Your task to perform on an android device: toggle pop-ups in chrome Image 0: 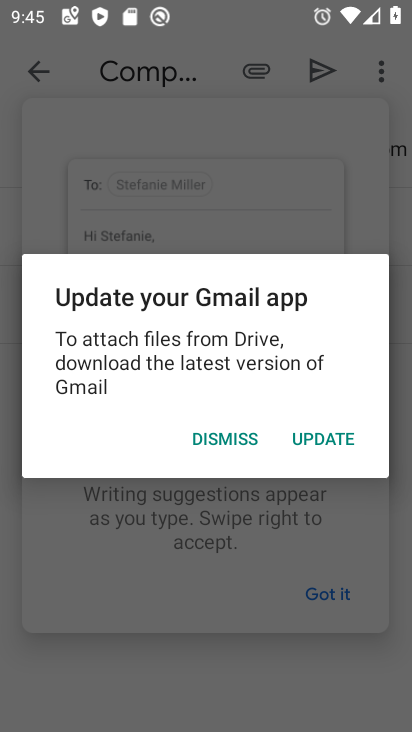
Step 0: press home button
Your task to perform on an android device: toggle pop-ups in chrome Image 1: 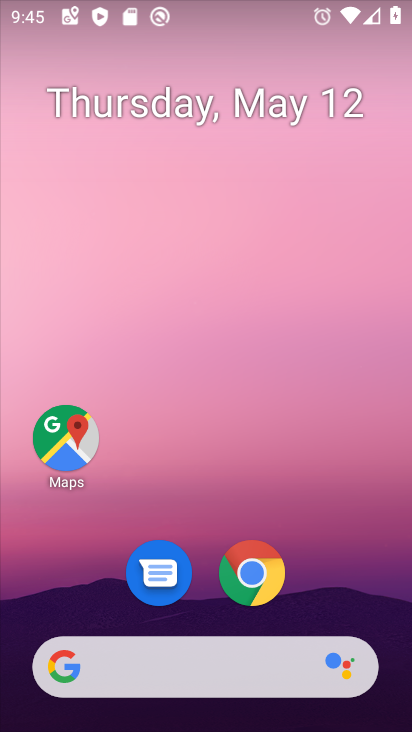
Step 1: drag from (330, 572) to (222, 171)
Your task to perform on an android device: toggle pop-ups in chrome Image 2: 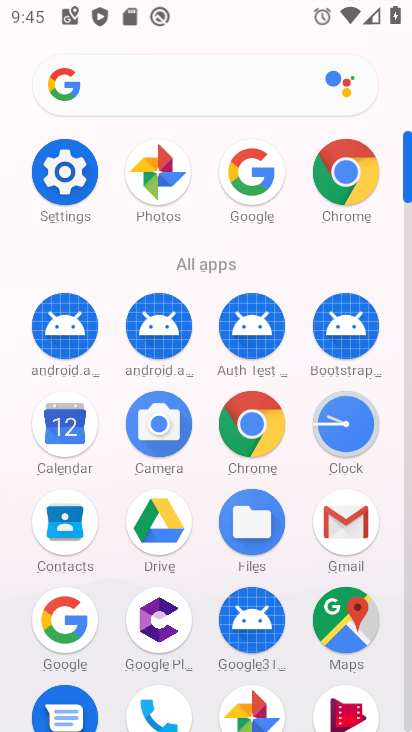
Step 2: click (341, 176)
Your task to perform on an android device: toggle pop-ups in chrome Image 3: 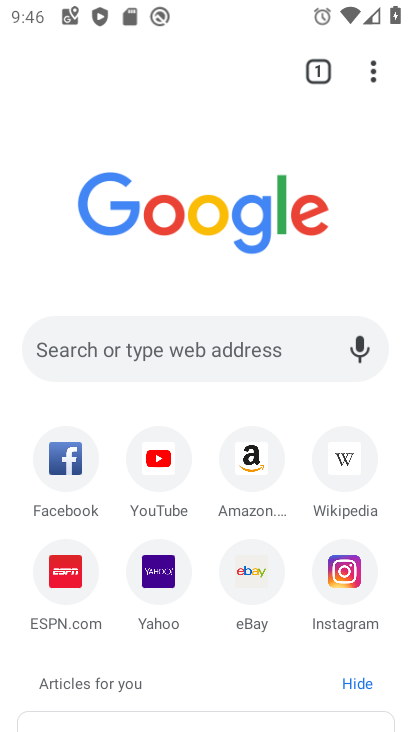
Step 3: click (373, 73)
Your task to perform on an android device: toggle pop-ups in chrome Image 4: 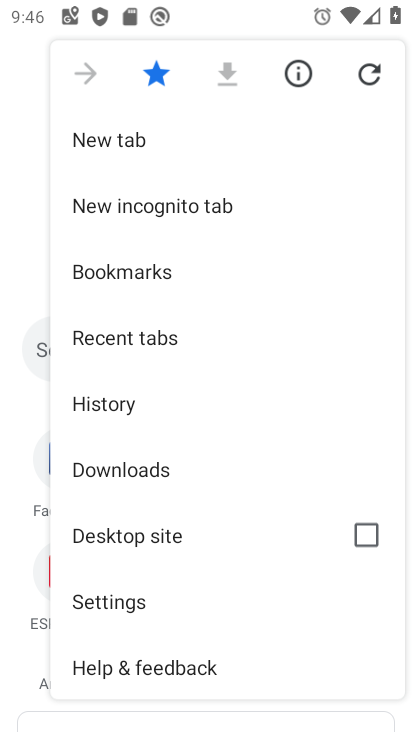
Step 4: click (132, 607)
Your task to perform on an android device: toggle pop-ups in chrome Image 5: 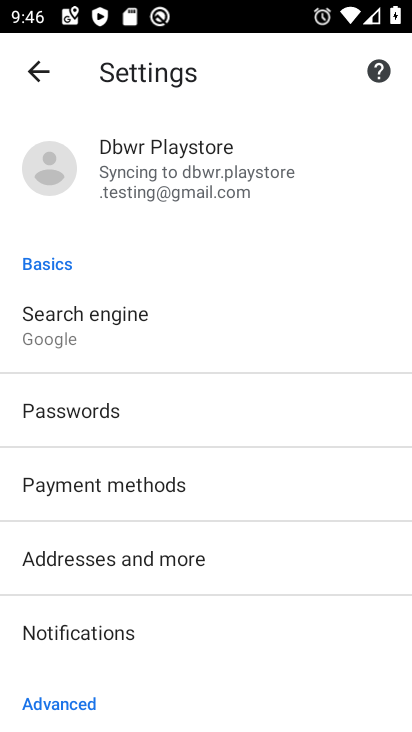
Step 5: drag from (128, 644) to (217, 501)
Your task to perform on an android device: toggle pop-ups in chrome Image 6: 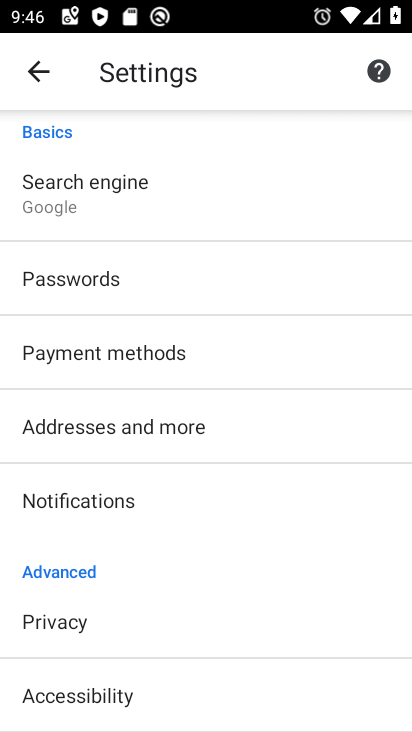
Step 6: drag from (147, 637) to (171, 539)
Your task to perform on an android device: toggle pop-ups in chrome Image 7: 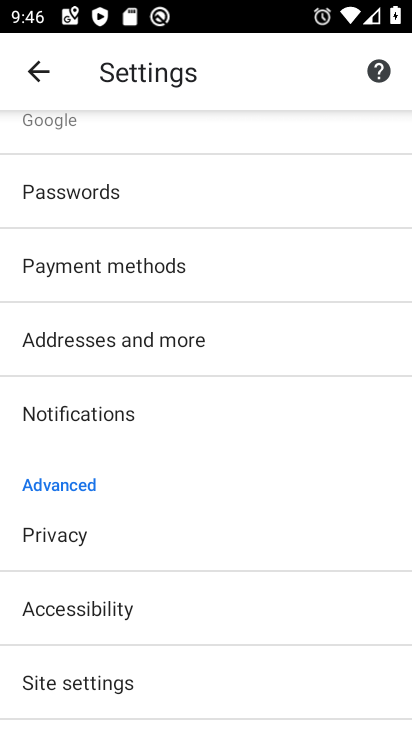
Step 7: drag from (171, 617) to (210, 515)
Your task to perform on an android device: toggle pop-ups in chrome Image 8: 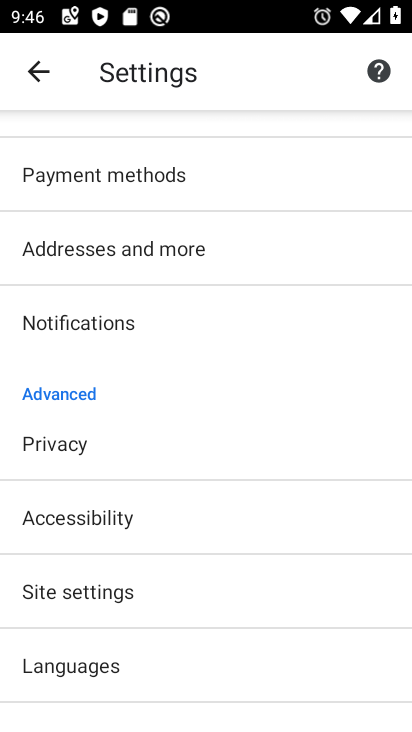
Step 8: click (125, 589)
Your task to perform on an android device: toggle pop-ups in chrome Image 9: 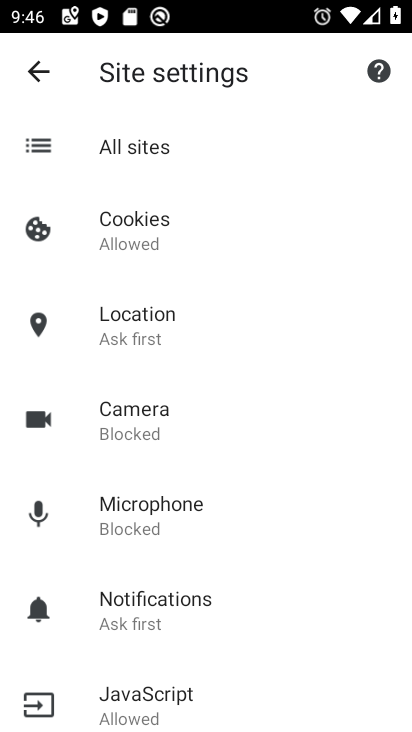
Step 9: drag from (216, 636) to (249, 527)
Your task to perform on an android device: toggle pop-ups in chrome Image 10: 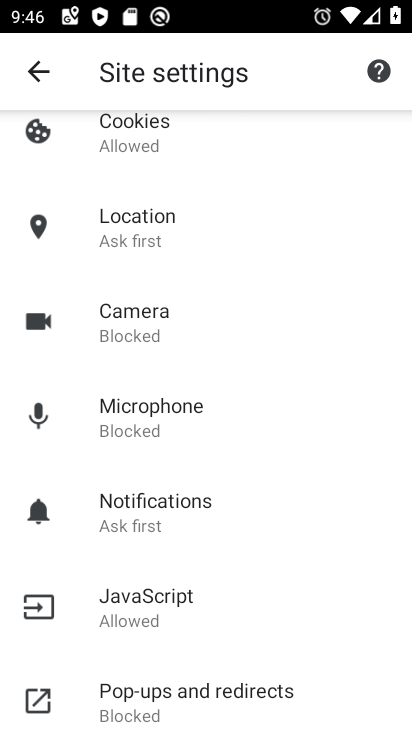
Step 10: drag from (199, 626) to (281, 506)
Your task to perform on an android device: toggle pop-ups in chrome Image 11: 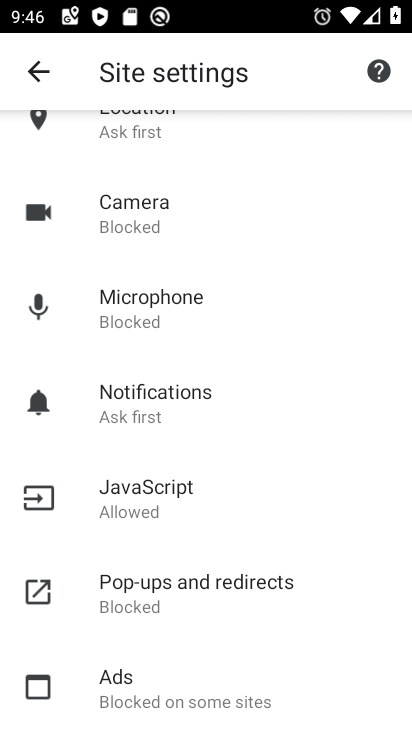
Step 11: click (207, 577)
Your task to perform on an android device: toggle pop-ups in chrome Image 12: 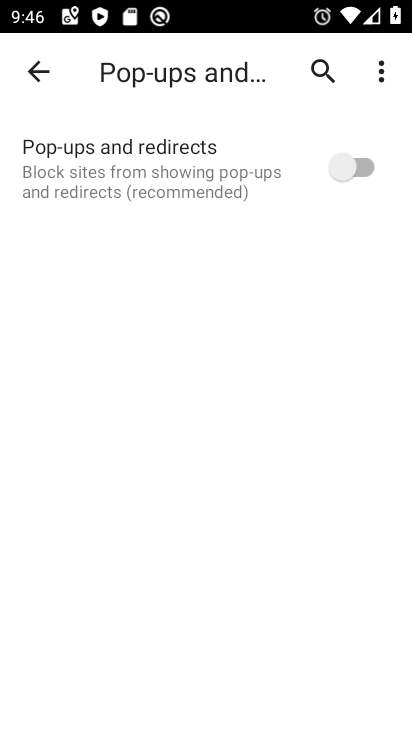
Step 12: click (342, 171)
Your task to perform on an android device: toggle pop-ups in chrome Image 13: 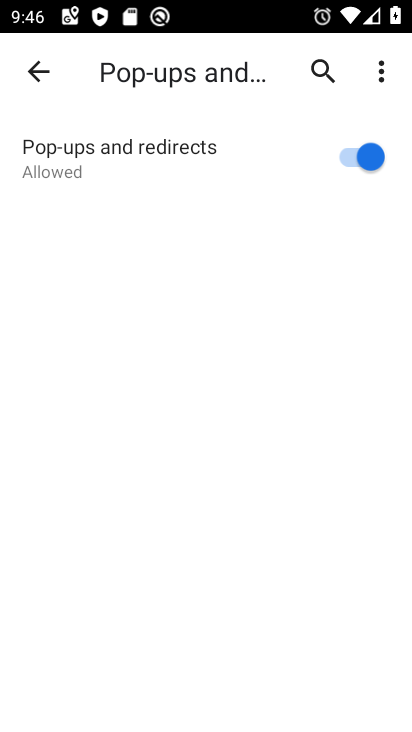
Step 13: task complete